Your task to perform on an android device: Go to display settings Image 0: 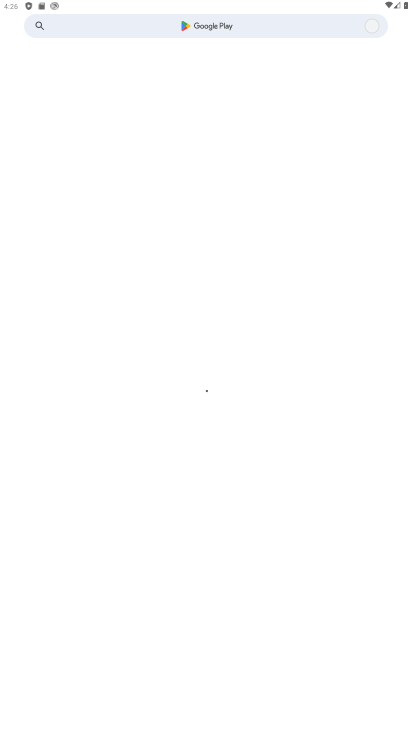
Step 0: press home button
Your task to perform on an android device: Go to display settings Image 1: 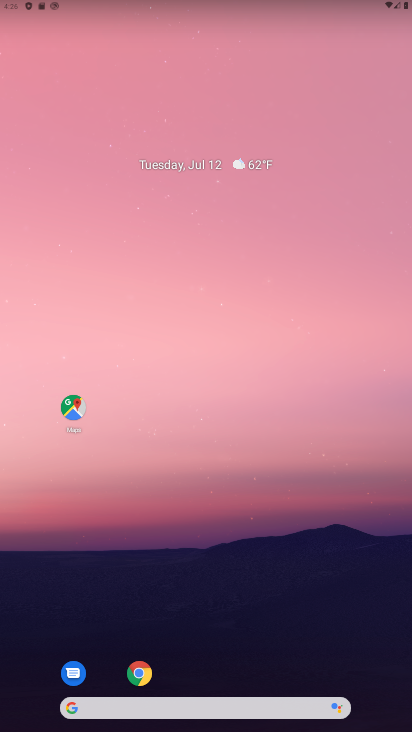
Step 1: drag from (225, 578) to (225, 283)
Your task to perform on an android device: Go to display settings Image 2: 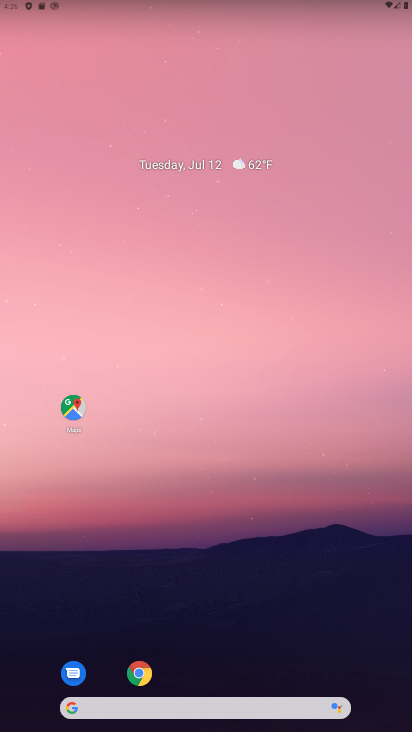
Step 2: drag from (213, 727) to (229, 10)
Your task to perform on an android device: Go to display settings Image 3: 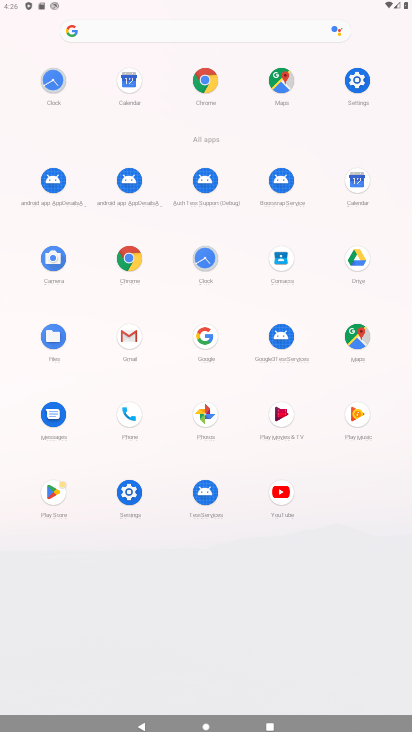
Step 3: click (365, 77)
Your task to perform on an android device: Go to display settings Image 4: 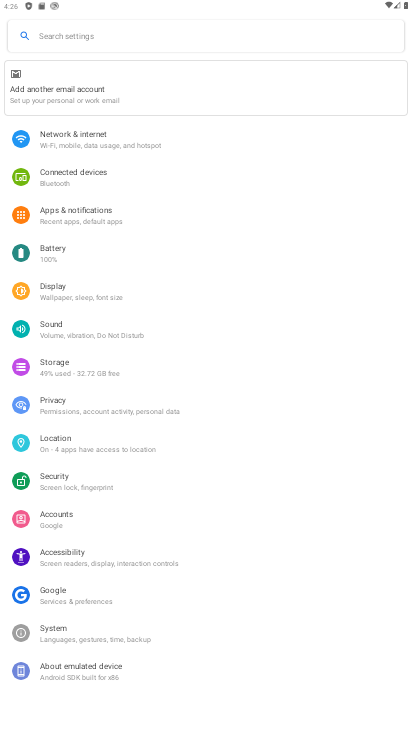
Step 4: click (58, 288)
Your task to perform on an android device: Go to display settings Image 5: 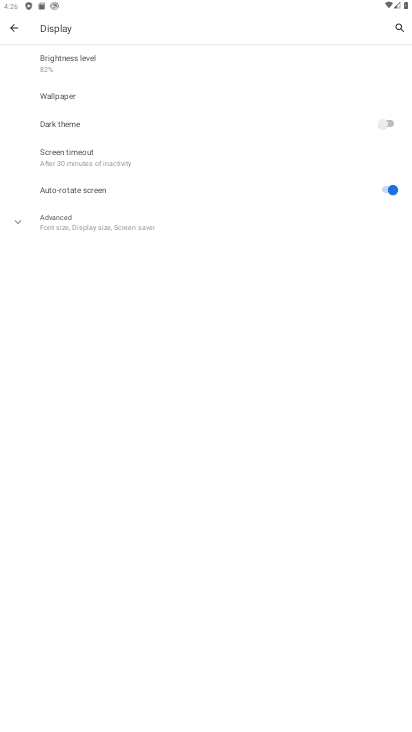
Step 5: task complete